Your task to perform on an android device: see sites visited before in the chrome app Image 0: 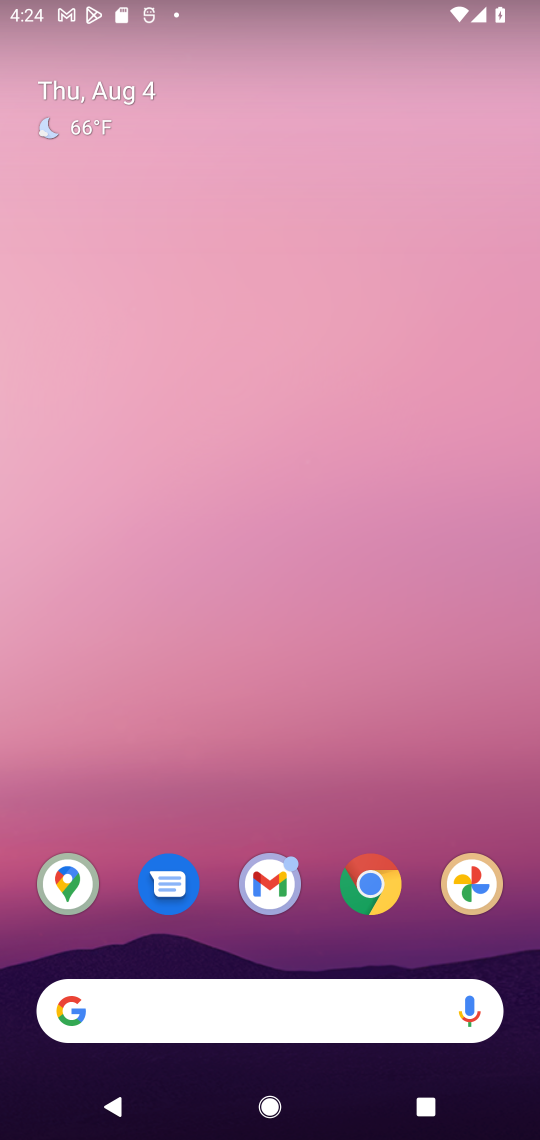
Step 0: click (377, 880)
Your task to perform on an android device: see sites visited before in the chrome app Image 1: 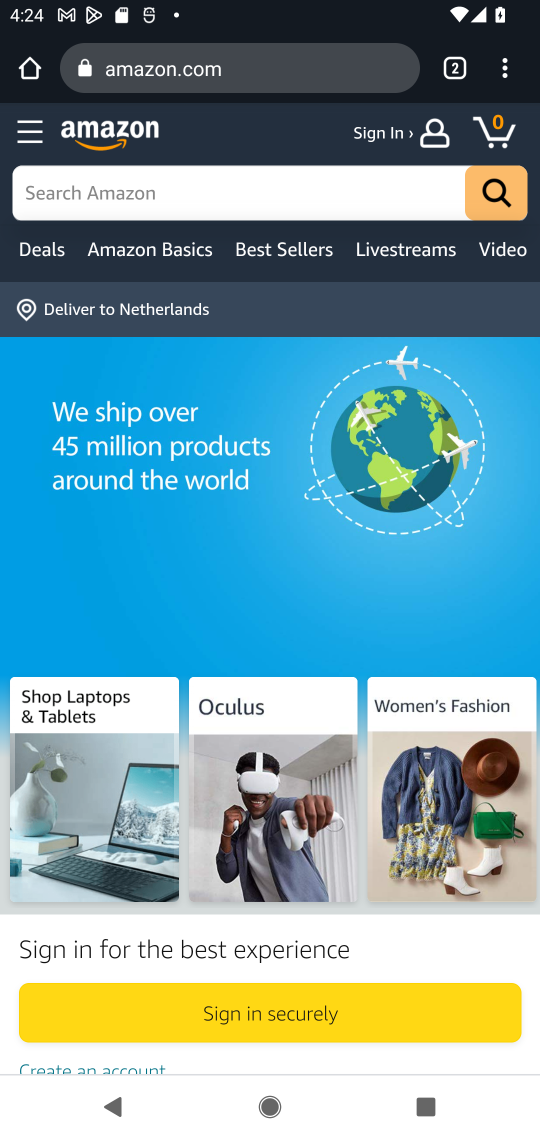
Step 1: click (507, 71)
Your task to perform on an android device: see sites visited before in the chrome app Image 2: 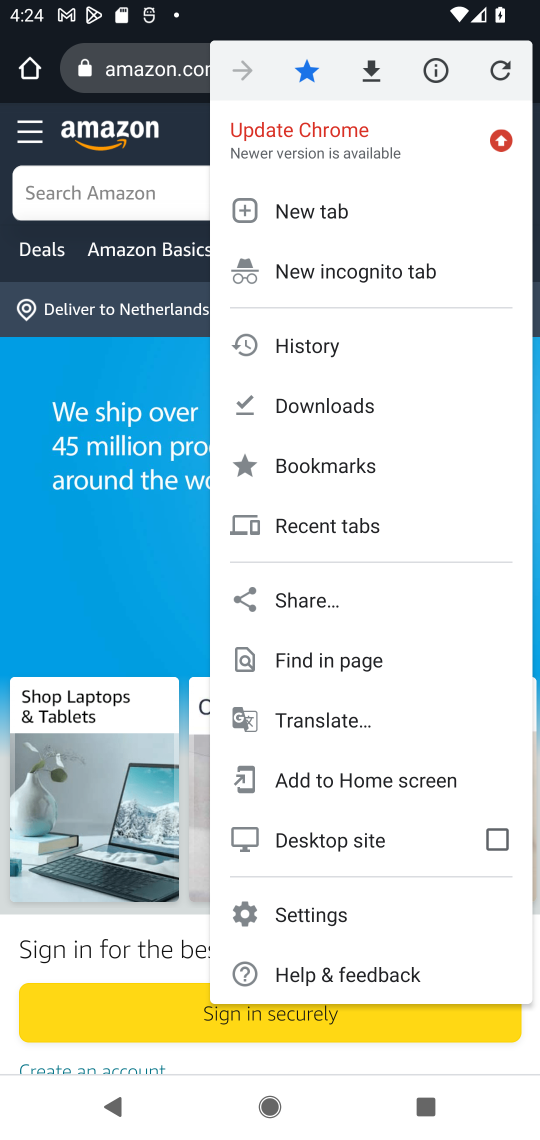
Step 2: click (311, 511)
Your task to perform on an android device: see sites visited before in the chrome app Image 3: 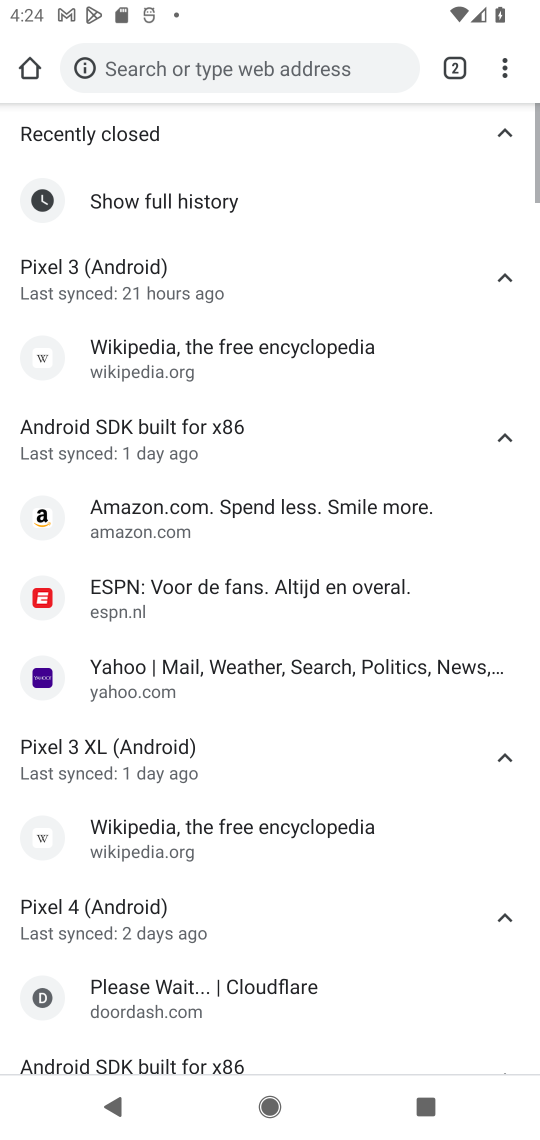
Step 3: task complete